Your task to perform on an android device: Turn on the flashlight Image 0: 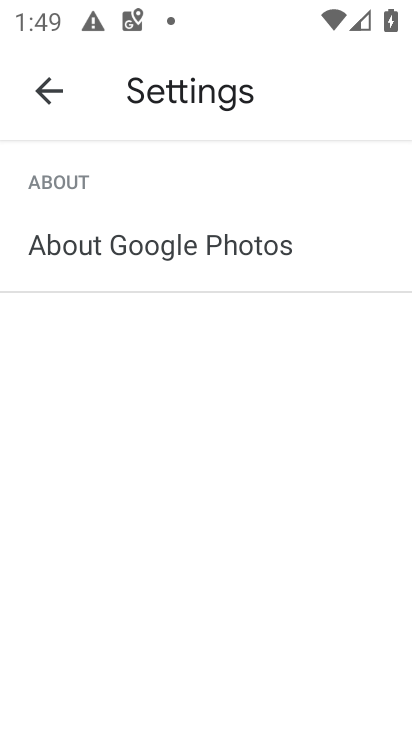
Step 0: press home button
Your task to perform on an android device: Turn on the flashlight Image 1: 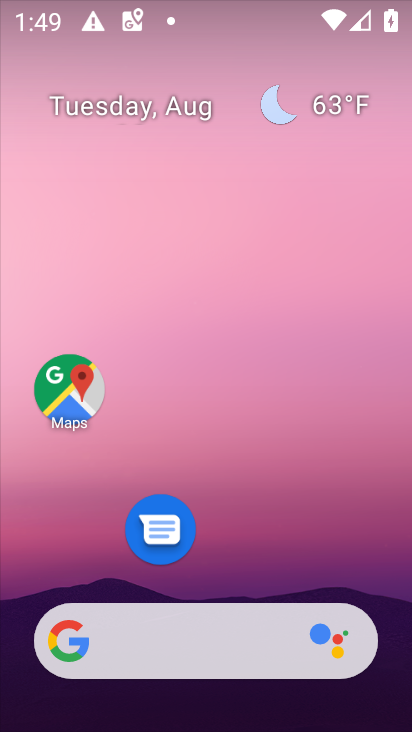
Step 1: drag from (275, 577) to (158, 0)
Your task to perform on an android device: Turn on the flashlight Image 2: 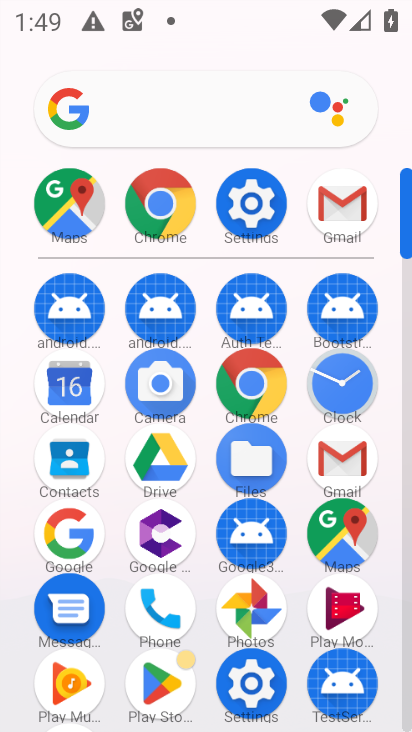
Step 2: click (245, 179)
Your task to perform on an android device: Turn on the flashlight Image 3: 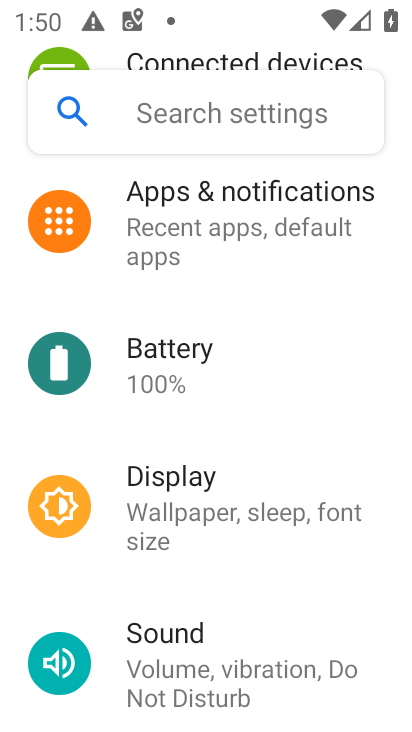
Step 3: task complete